Your task to perform on an android device: toggle location history Image 0: 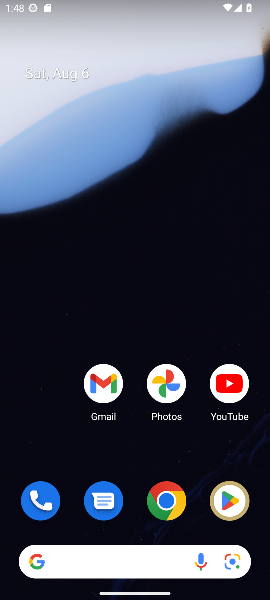
Step 0: drag from (196, 518) to (248, 145)
Your task to perform on an android device: toggle location history Image 1: 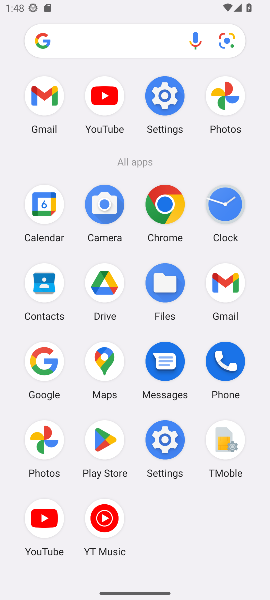
Step 1: click (181, 98)
Your task to perform on an android device: toggle location history Image 2: 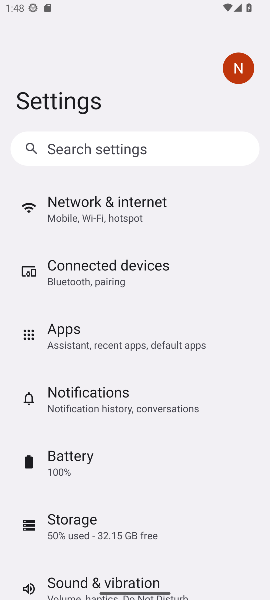
Step 2: drag from (214, 552) to (202, 237)
Your task to perform on an android device: toggle location history Image 3: 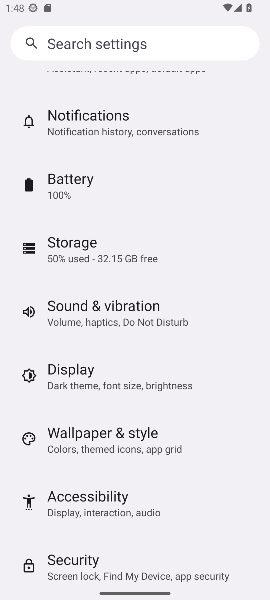
Step 3: drag from (207, 500) to (169, 203)
Your task to perform on an android device: toggle location history Image 4: 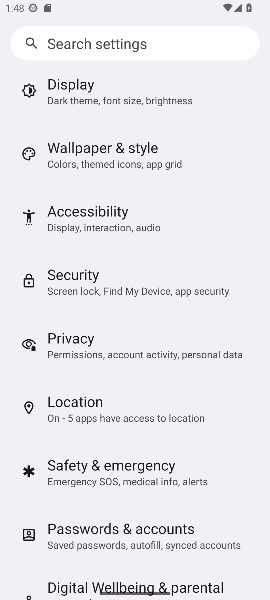
Step 4: click (81, 406)
Your task to perform on an android device: toggle location history Image 5: 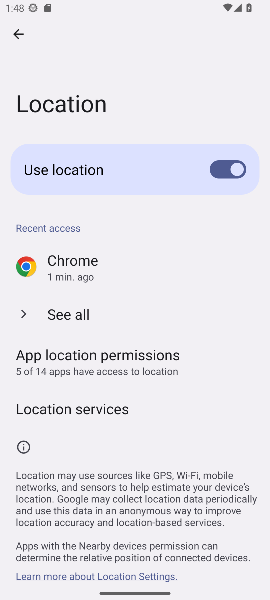
Step 5: click (79, 409)
Your task to perform on an android device: toggle location history Image 6: 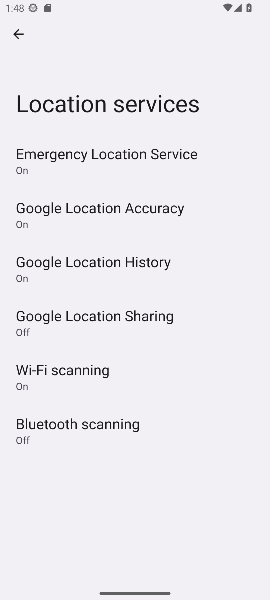
Step 6: click (112, 264)
Your task to perform on an android device: toggle location history Image 7: 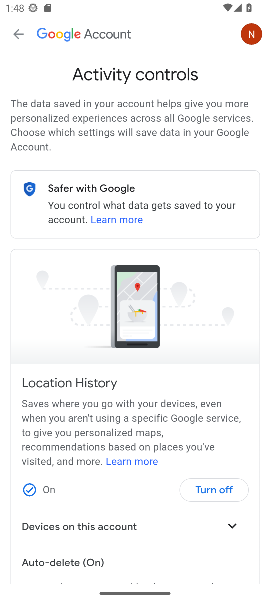
Step 7: click (214, 491)
Your task to perform on an android device: toggle location history Image 8: 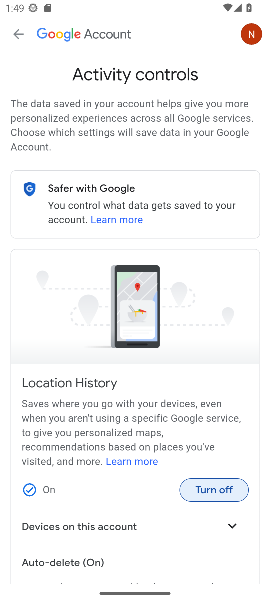
Step 8: click (212, 485)
Your task to perform on an android device: toggle location history Image 9: 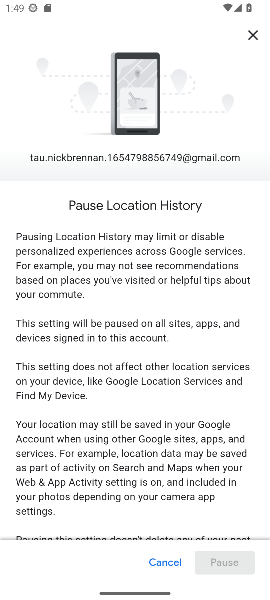
Step 9: drag from (194, 512) to (229, 182)
Your task to perform on an android device: toggle location history Image 10: 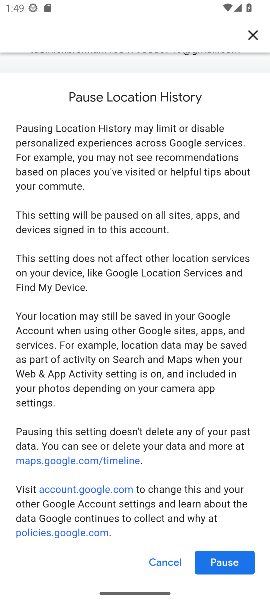
Step 10: click (226, 568)
Your task to perform on an android device: toggle location history Image 11: 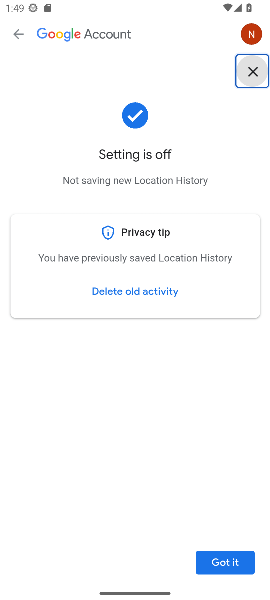
Step 11: click (226, 568)
Your task to perform on an android device: toggle location history Image 12: 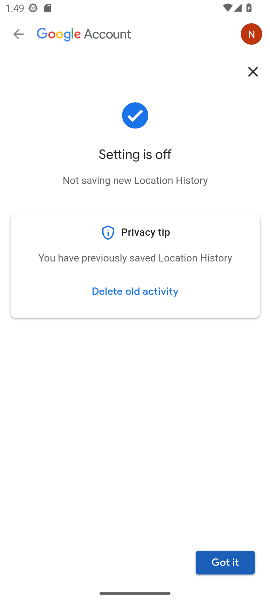
Step 12: click (214, 564)
Your task to perform on an android device: toggle location history Image 13: 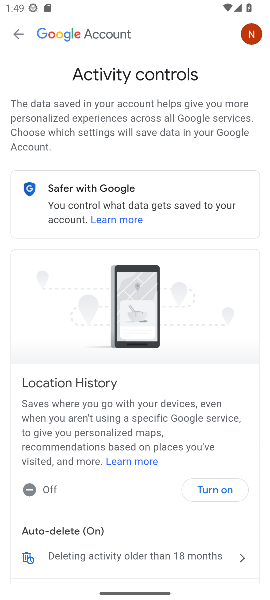
Step 13: task complete